Your task to perform on an android device: Open Wikipedia Image 0: 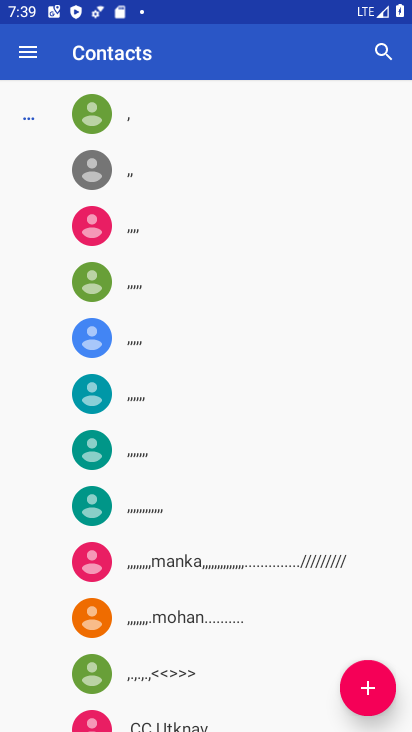
Step 0: press home button
Your task to perform on an android device: Open Wikipedia Image 1: 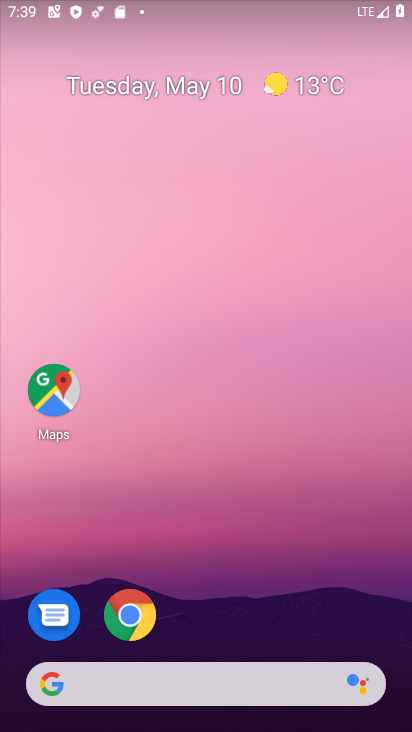
Step 1: drag from (258, 577) to (317, 178)
Your task to perform on an android device: Open Wikipedia Image 2: 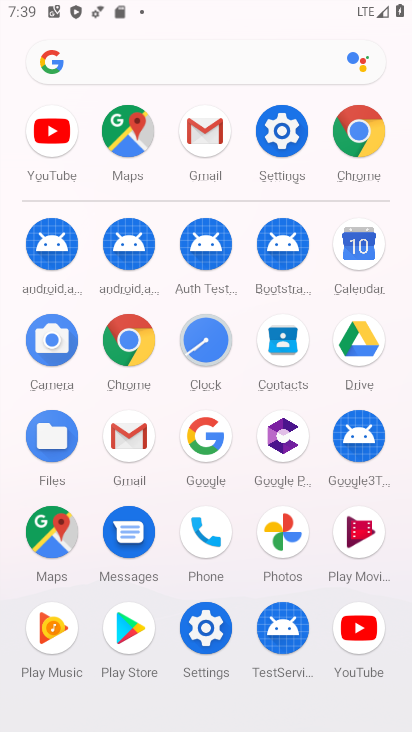
Step 2: click (369, 136)
Your task to perform on an android device: Open Wikipedia Image 3: 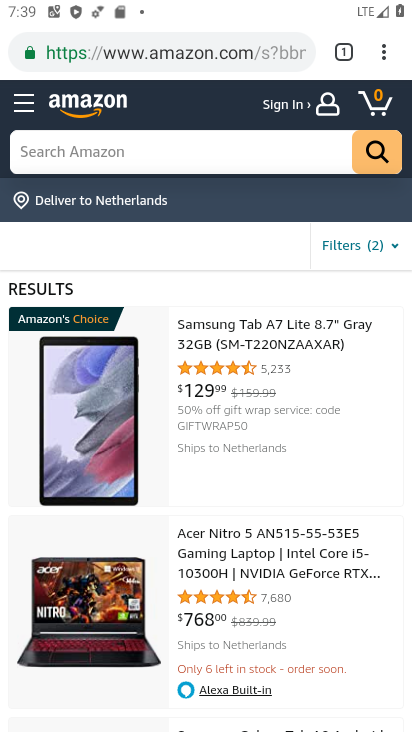
Step 3: click (252, 38)
Your task to perform on an android device: Open Wikipedia Image 4: 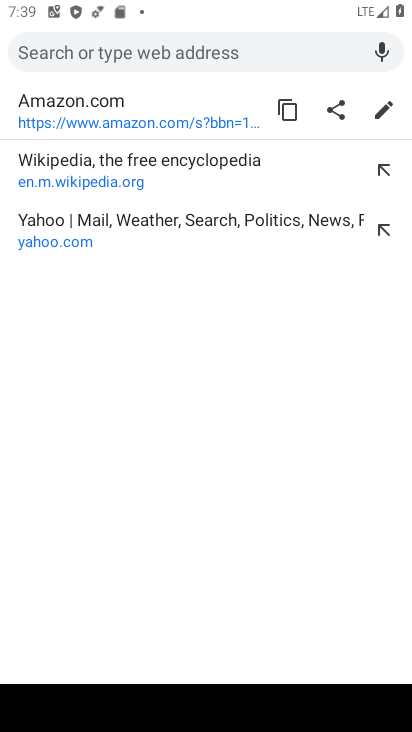
Step 4: click (103, 168)
Your task to perform on an android device: Open Wikipedia Image 5: 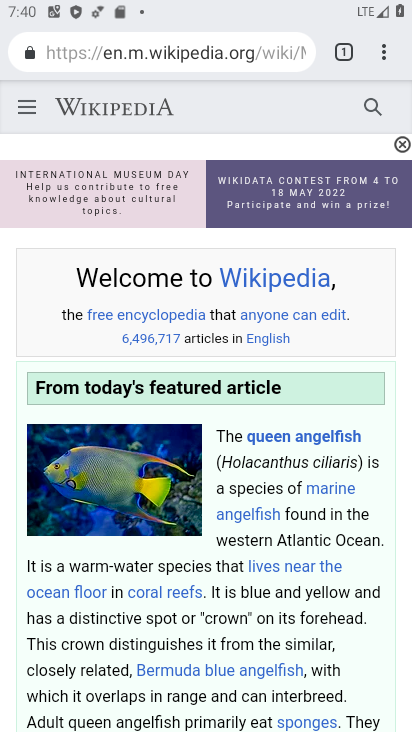
Step 5: task complete